Your task to perform on an android device: turn on sleep mode Image 0: 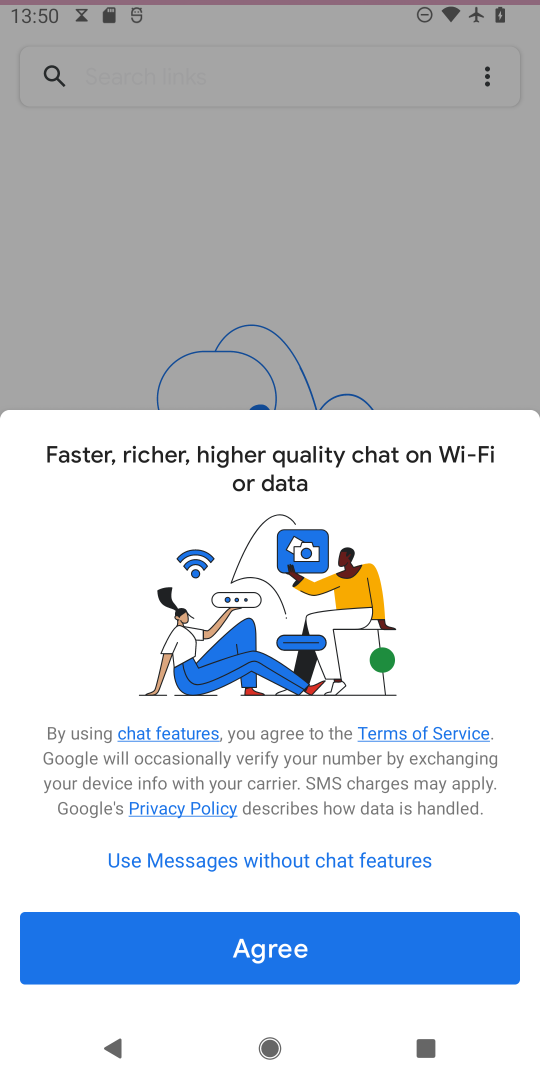
Step 0: press home button
Your task to perform on an android device: turn on sleep mode Image 1: 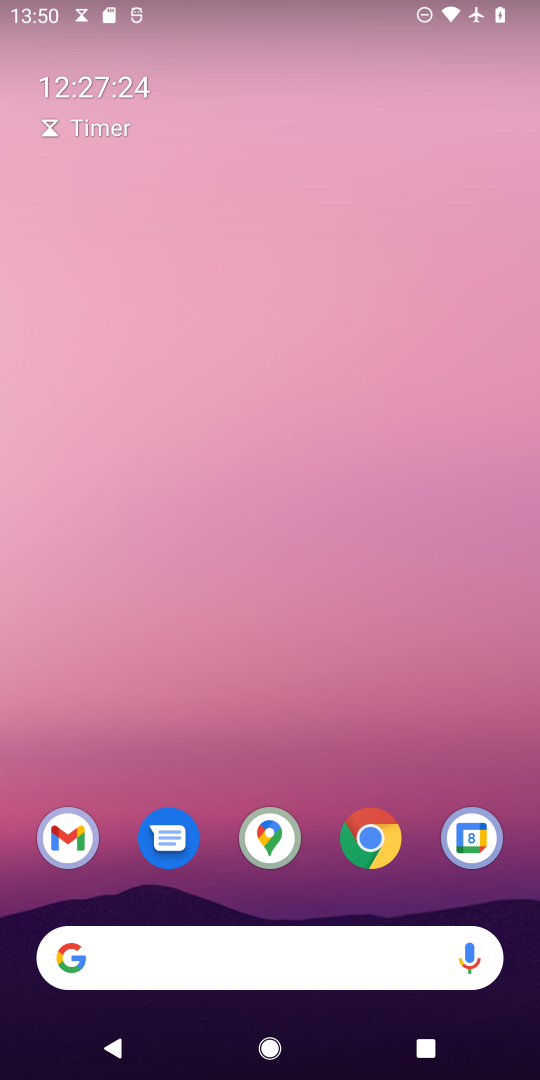
Step 1: drag from (327, 877) to (348, 2)
Your task to perform on an android device: turn on sleep mode Image 2: 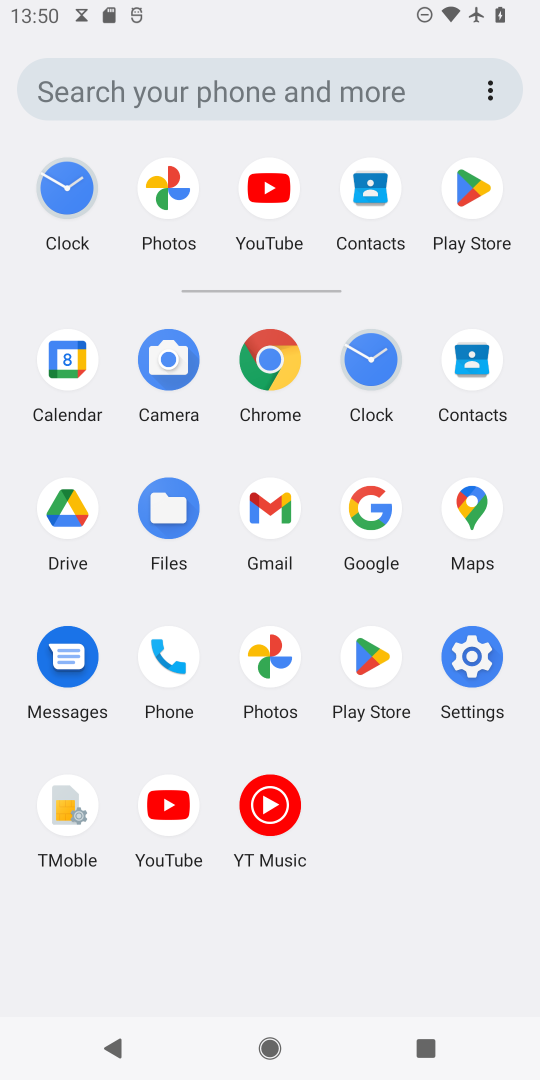
Step 2: click (469, 657)
Your task to perform on an android device: turn on sleep mode Image 3: 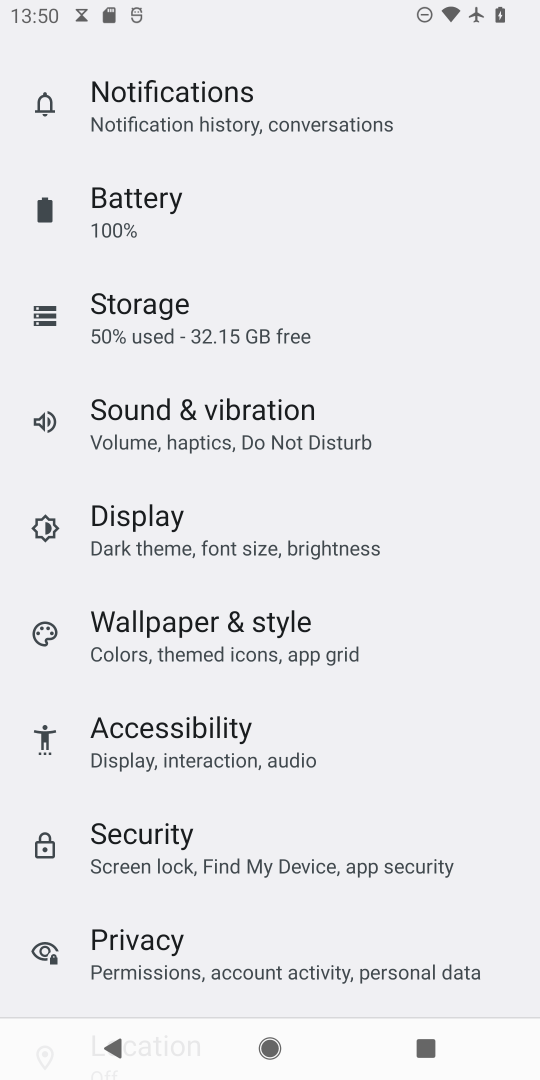
Step 3: click (137, 509)
Your task to perform on an android device: turn on sleep mode Image 4: 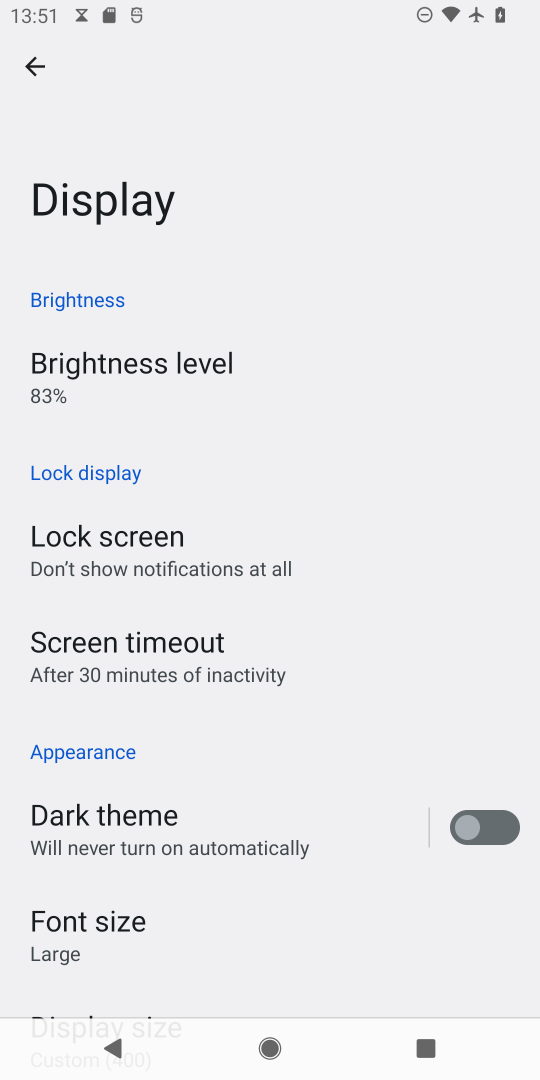
Step 4: task complete